Your task to perform on an android device: What's the weather going to be this weekend? Image 0: 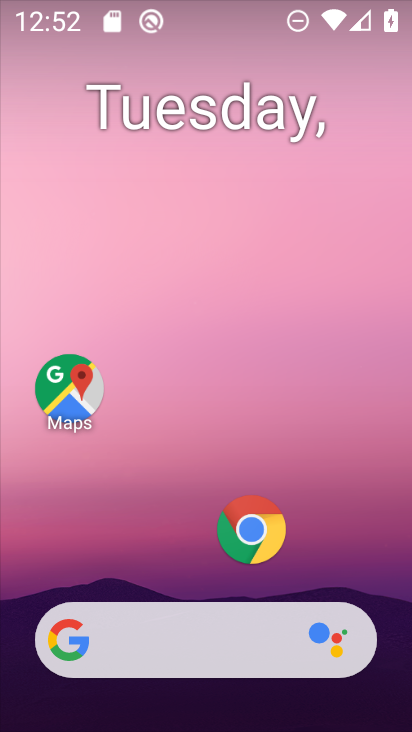
Step 0: drag from (263, 676) to (318, 239)
Your task to perform on an android device: What's the weather going to be this weekend? Image 1: 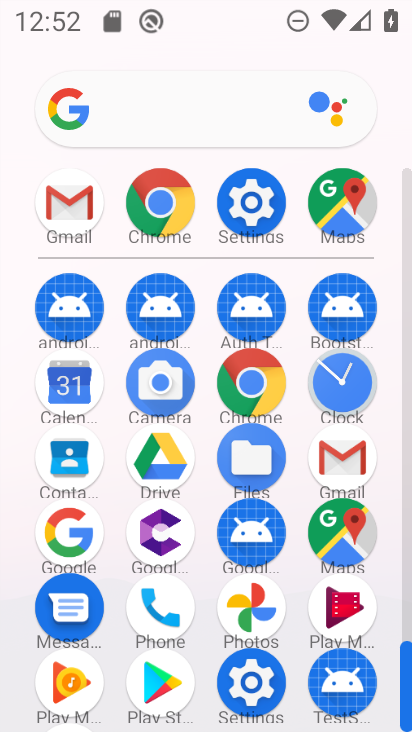
Step 1: click (146, 130)
Your task to perform on an android device: What's the weather going to be this weekend? Image 2: 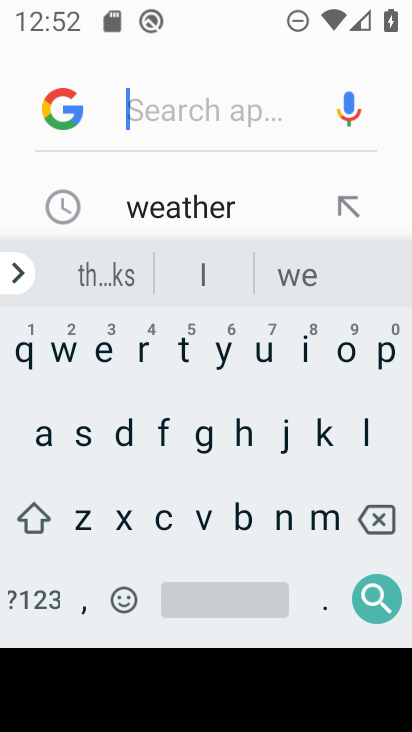
Step 2: click (186, 199)
Your task to perform on an android device: What's the weather going to be this weekend? Image 3: 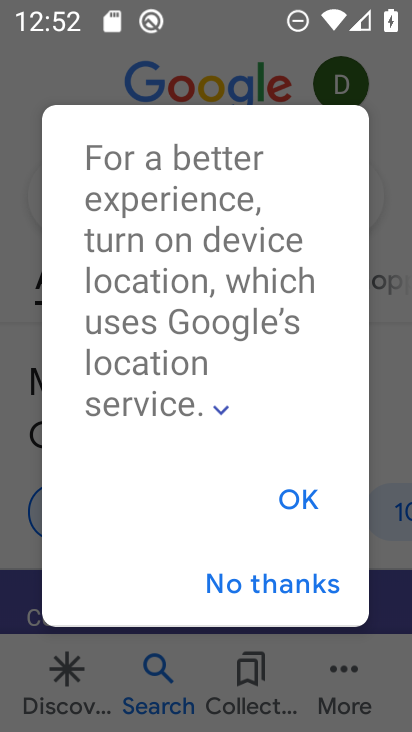
Step 3: click (314, 499)
Your task to perform on an android device: What's the weather going to be this weekend? Image 4: 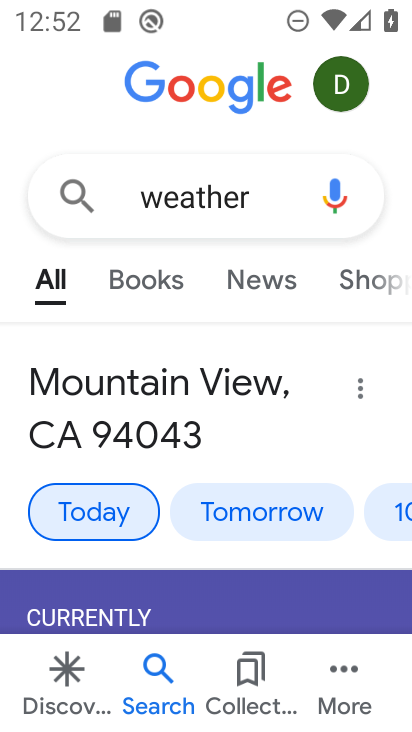
Step 4: click (387, 501)
Your task to perform on an android device: What's the weather going to be this weekend? Image 5: 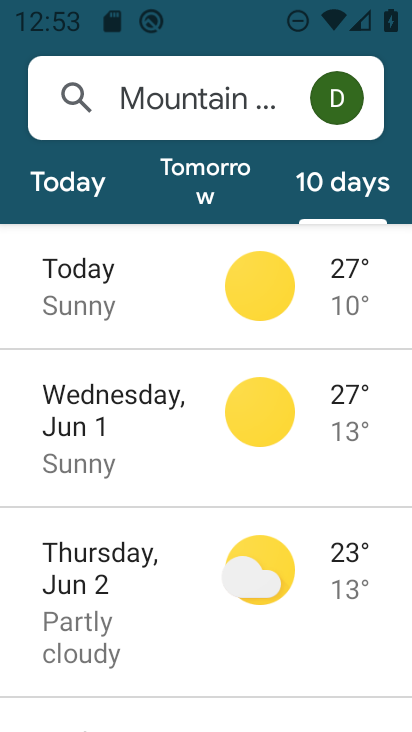
Step 5: task complete